Your task to perform on an android device: Go to display settings Image 0: 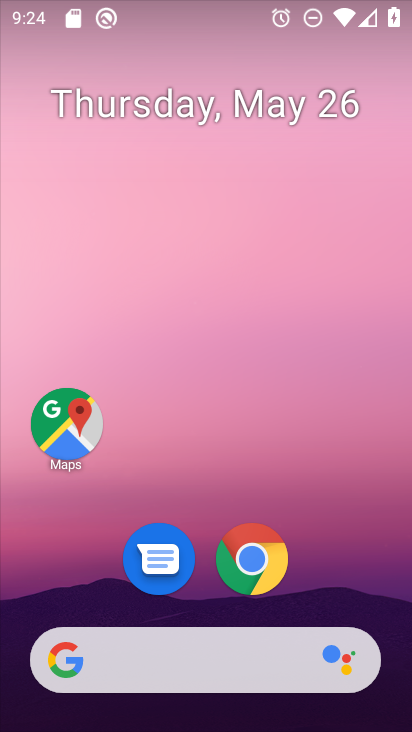
Step 0: drag from (283, 609) to (345, 86)
Your task to perform on an android device: Go to display settings Image 1: 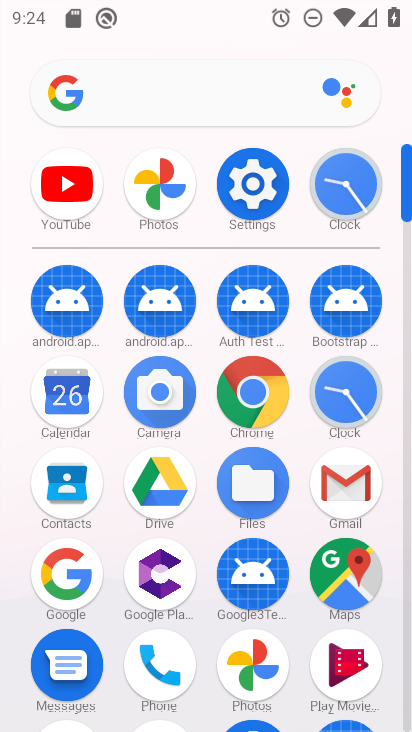
Step 1: click (259, 184)
Your task to perform on an android device: Go to display settings Image 2: 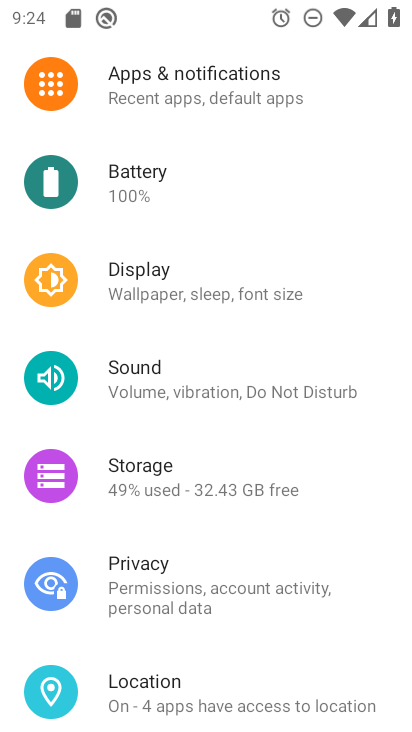
Step 2: click (205, 265)
Your task to perform on an android device: Go to display settings Image 3: 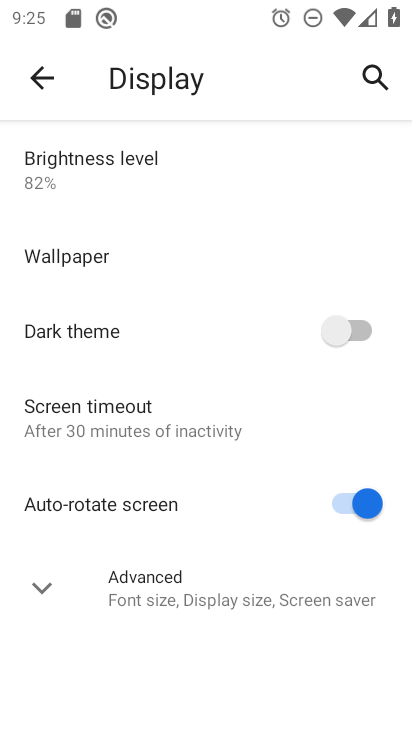
Step 3: task complete